Your task to perform on an android device: uninstall "Lyft - Rideshare, Bikes, Scooters & Transit" Image 0: 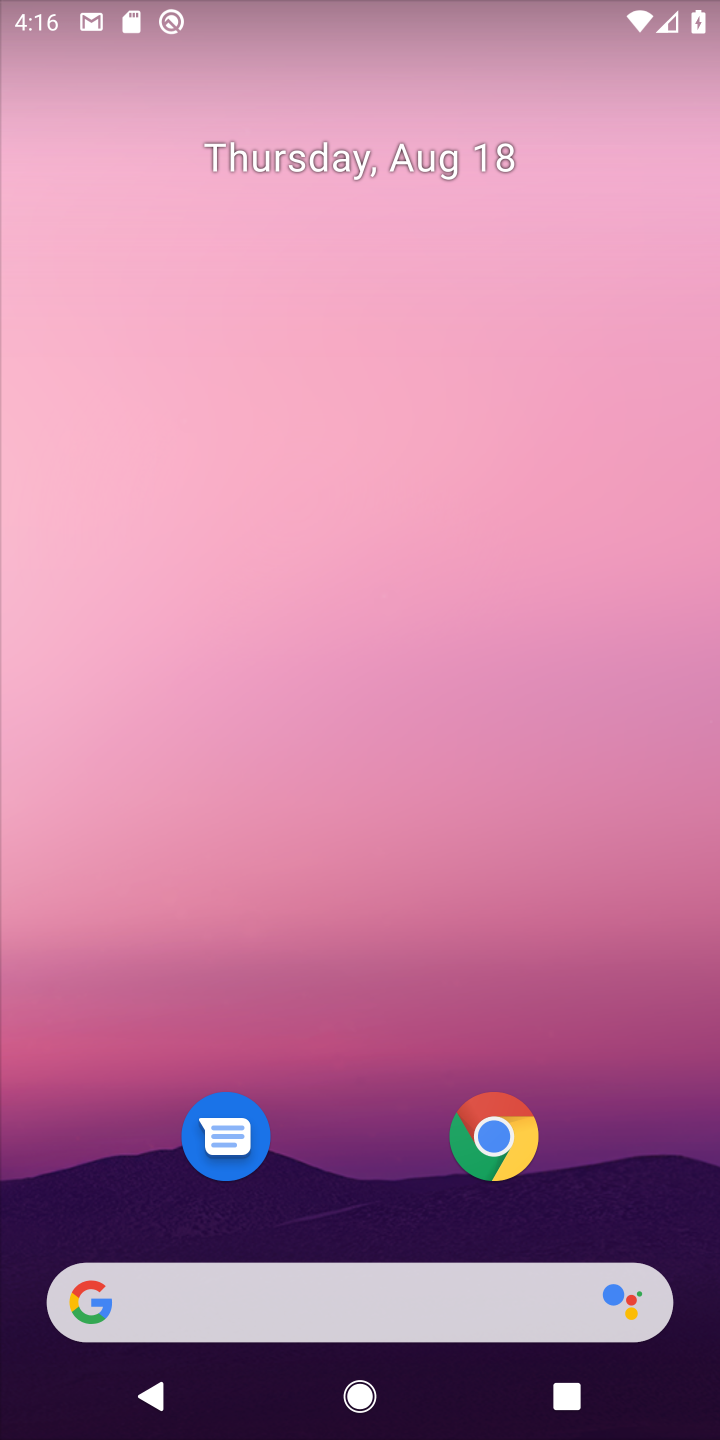
Step 0: drag from (374, 1210) to (546, 21)
Your task to perform on an android device: uninstall "Lyft - Rideshare, Bikes, Scooters & Transit" Image 1: 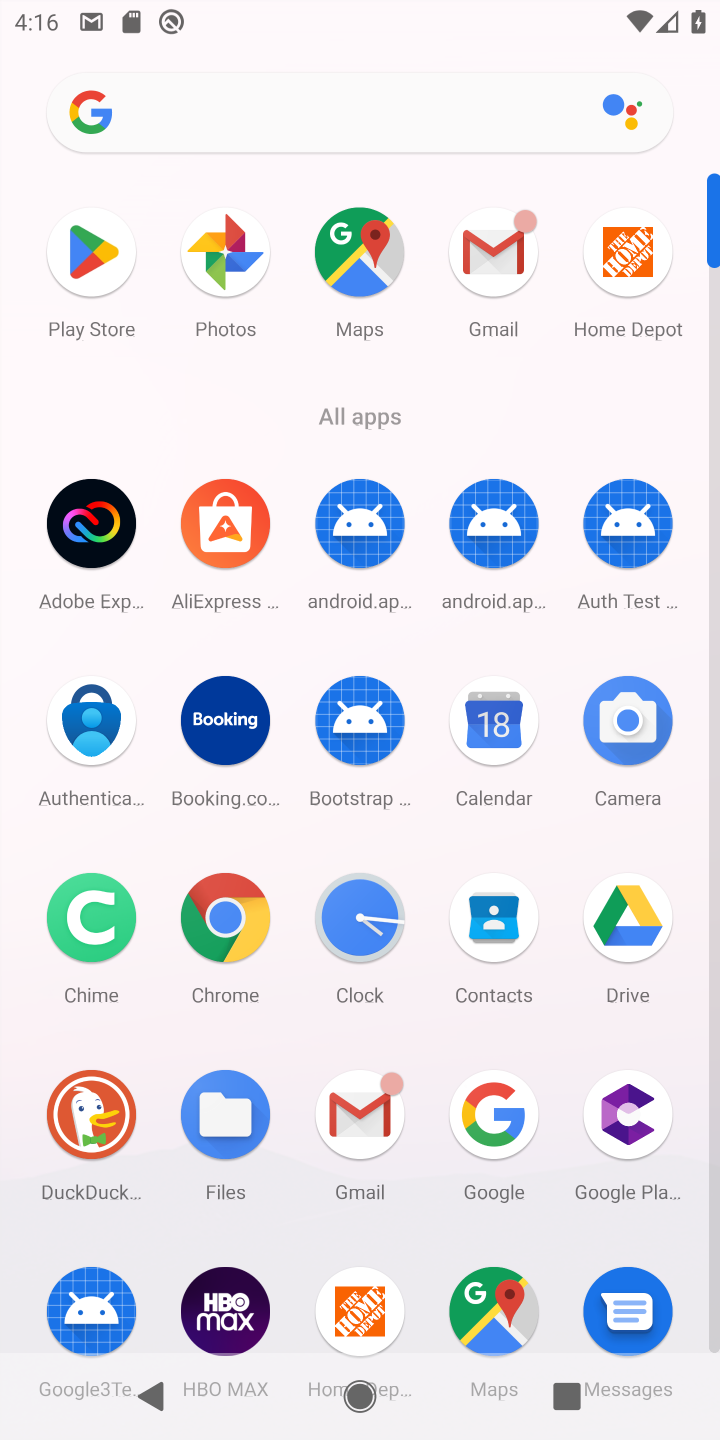
Step 1: drag from (378, 921) to (427, 633)
Your task to perform on an android device: uninstall "Lyft - Rideshare, Bikes, Scooters & Transit" Image 2: 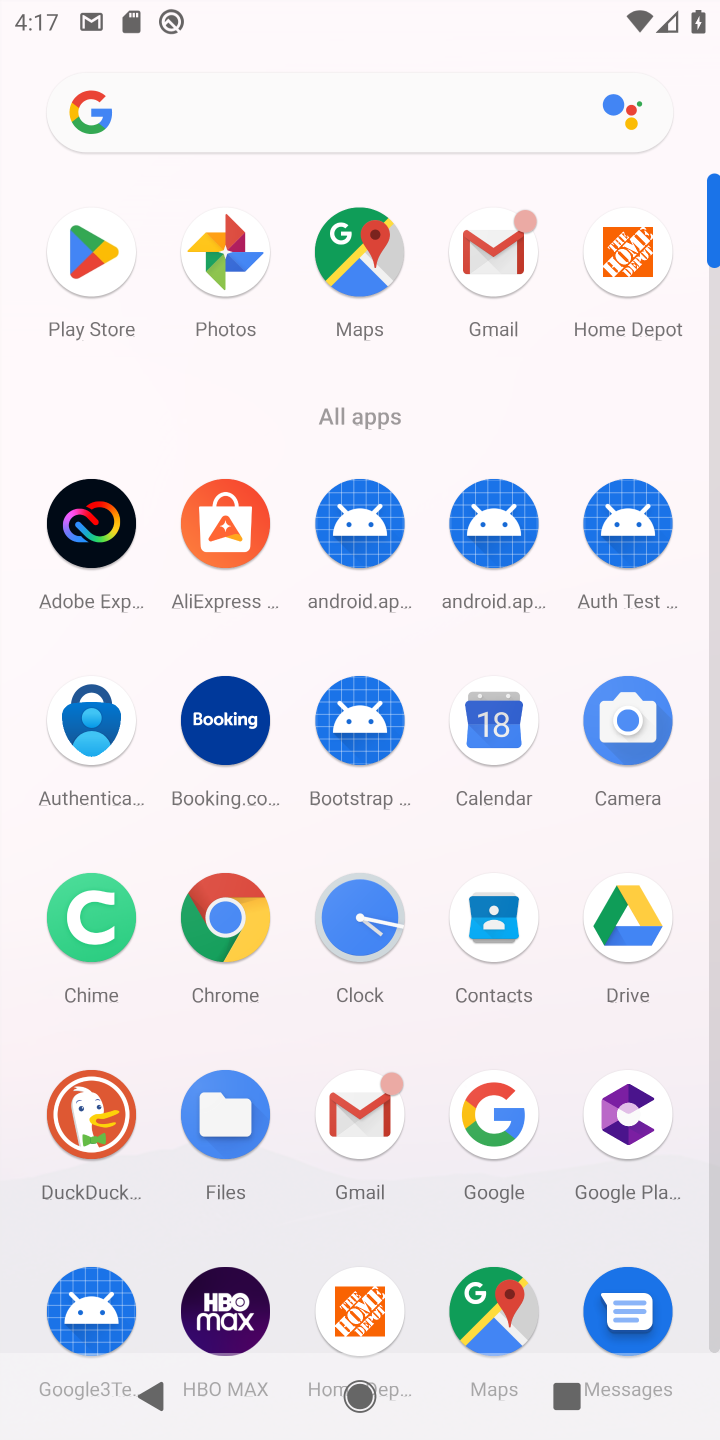
Step 2: drag from (397, 876) to (395, 661)
Your task to perform on an android device: uninstall "Lyft - Rideshare, Bikes, Scooters & Transit" Image 3: 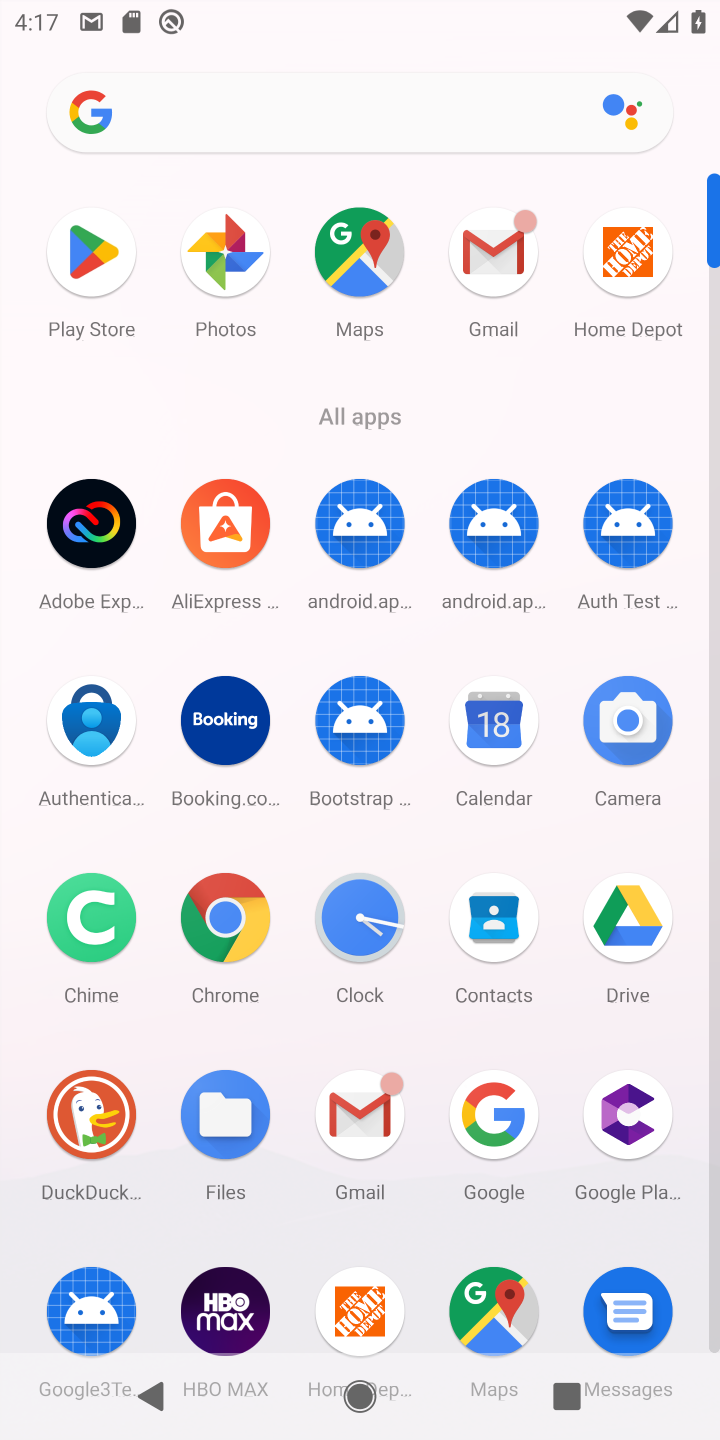
Step 3: click (130, 292)
Your task to perform on an android device: uninstall "Lyft - Rideshare, Bikes, Scooters & Transit" Image 4: 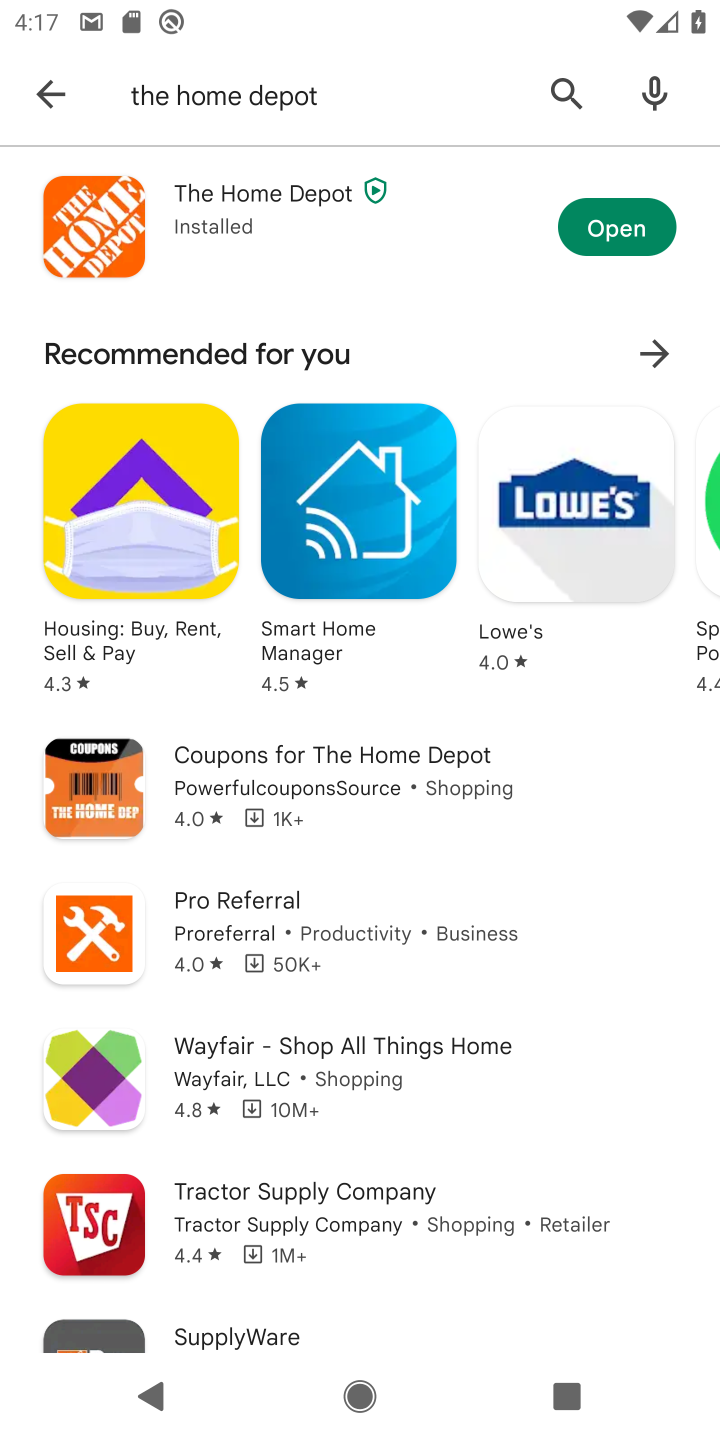
Step 4: click (213, 86)
Your task to perform on an android device: uninstall "Lyft - Rideshare, Bikes, Scooters & Transit" Image 5: 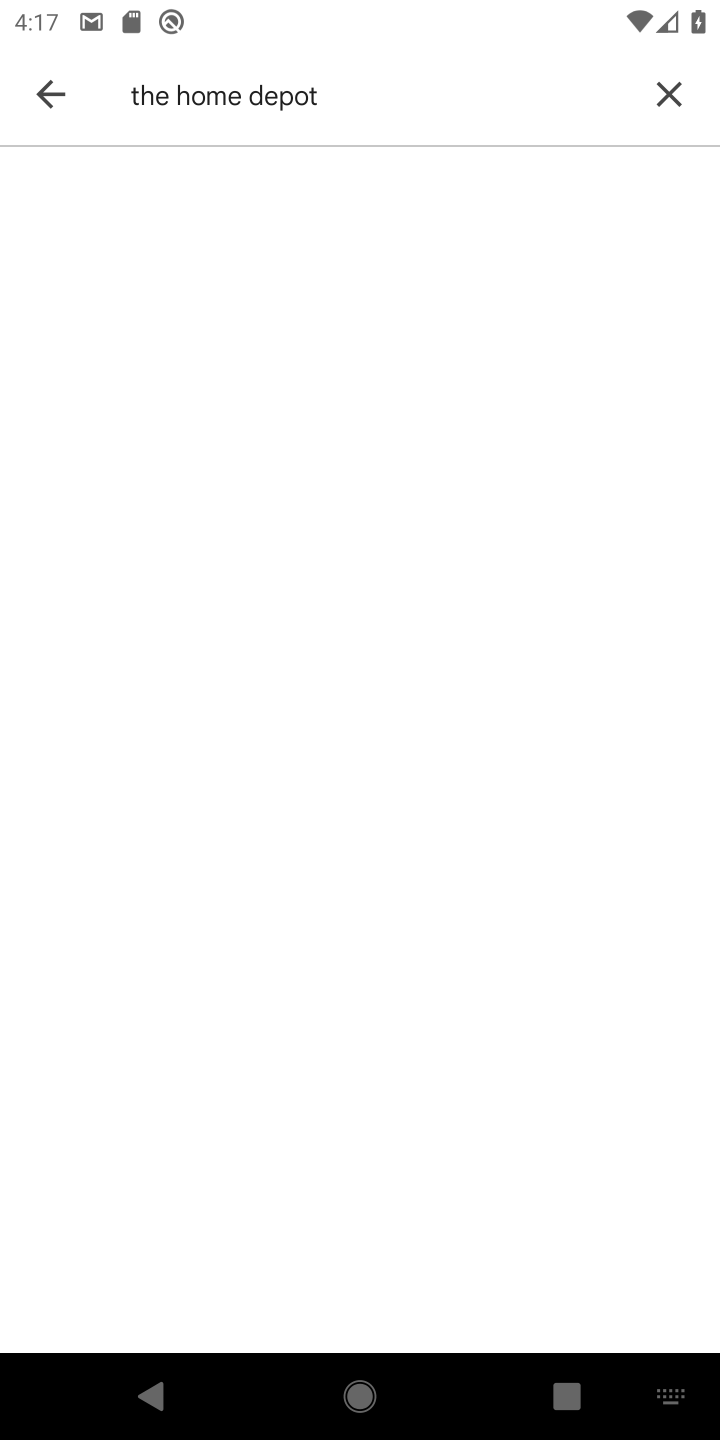
Step 5: click (676, 97)
Your task to perform on an android device: uninstall "Lyft - Rideshare, Bikes, Scooters & Transit" Image 6: 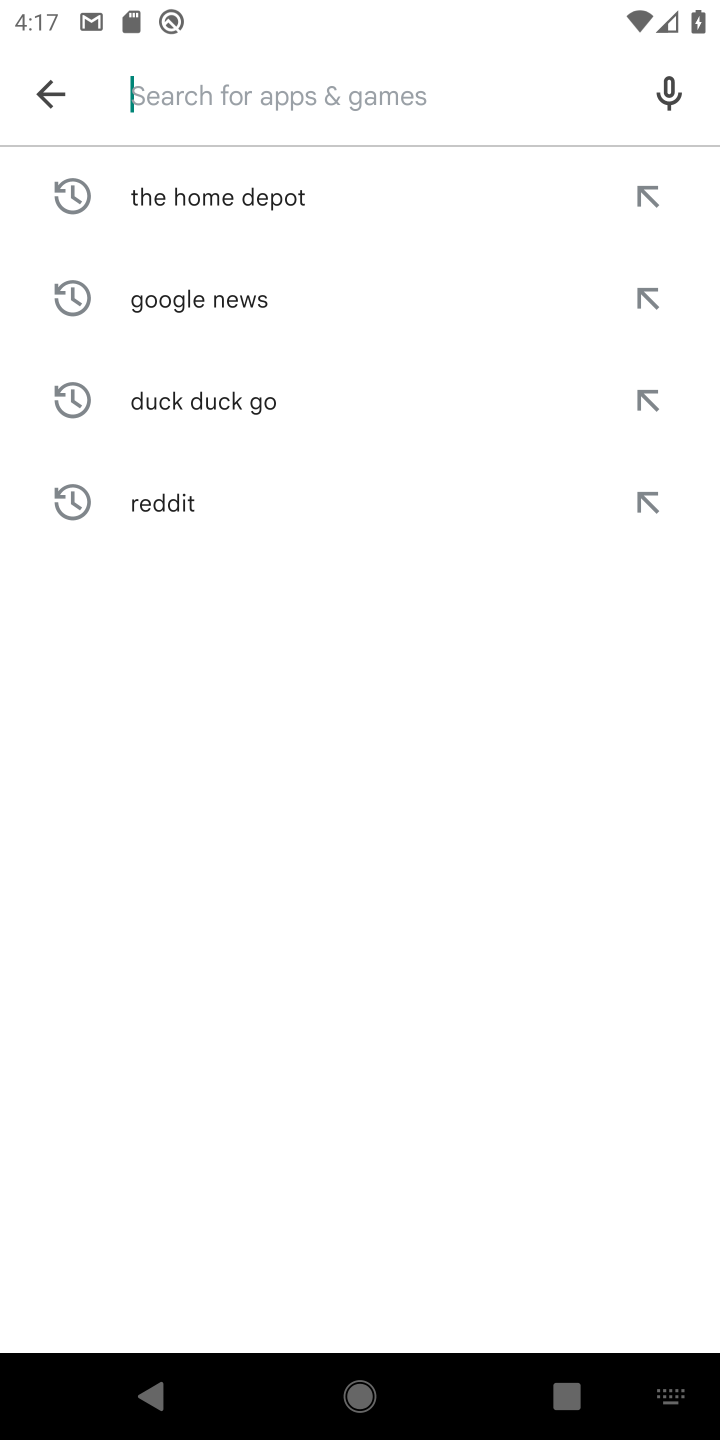
Step 6: type "lyft"
Your task to perform on an android device: uninstall "Lyft - Rideshare, Bikes, Scooters & Transit" Image 7: 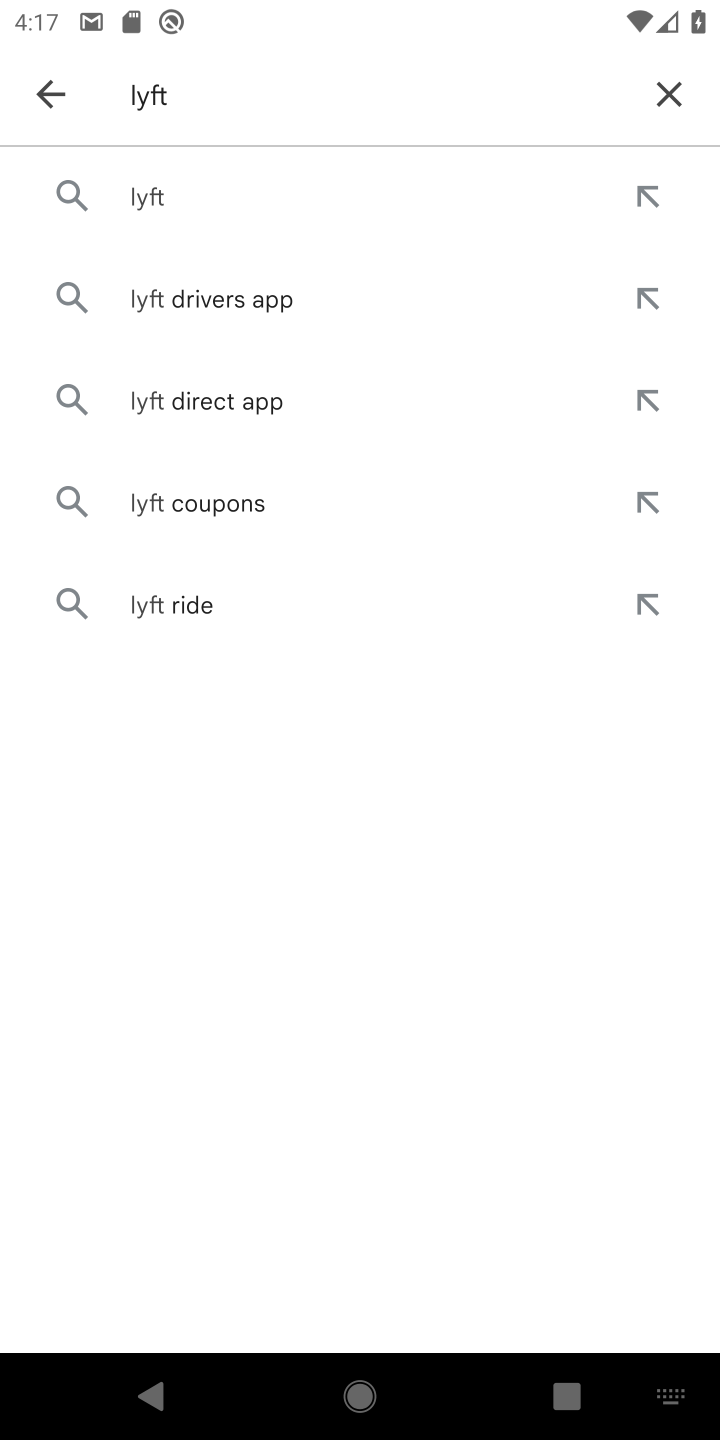
Step 7: click (171, 188)
Your task to perform on an android device: uninstall "Lyft - Rideshare, Bikes, Scooters & Transit" Image 8: 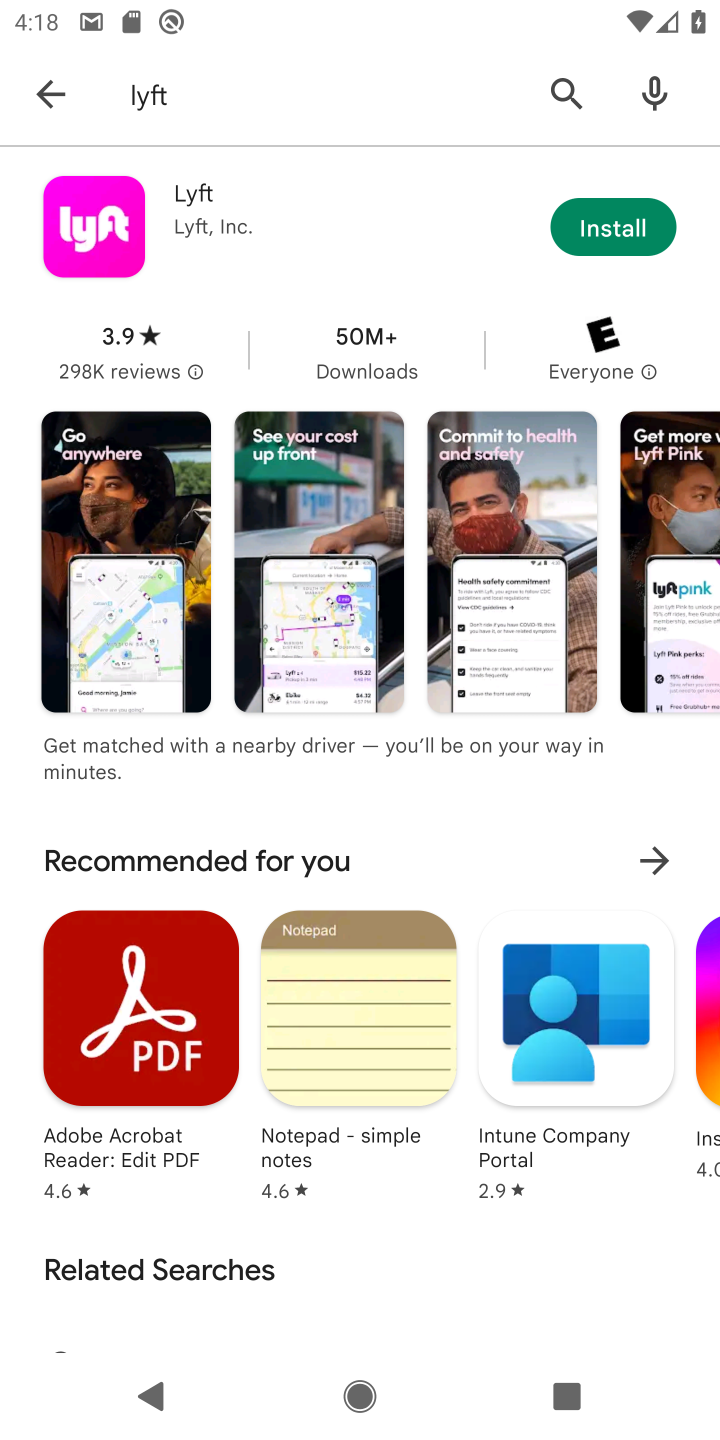
Step 8: task complete